Your task to perform on an android device: Open Google Maps Image 0: 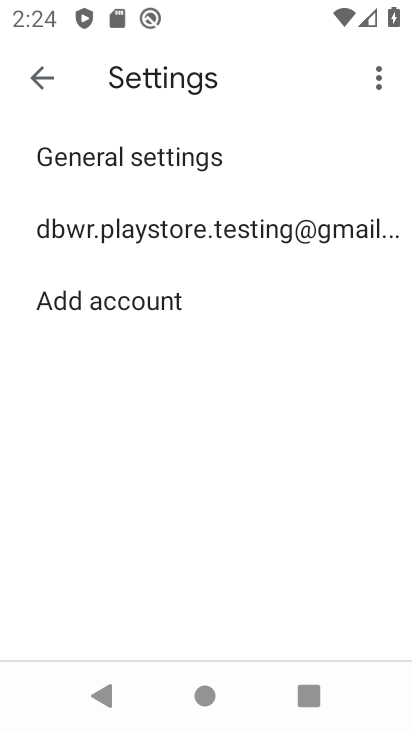
Step 0: task complete